Your task to perform on an android device: refresh tabs in the chrome app Image 0: 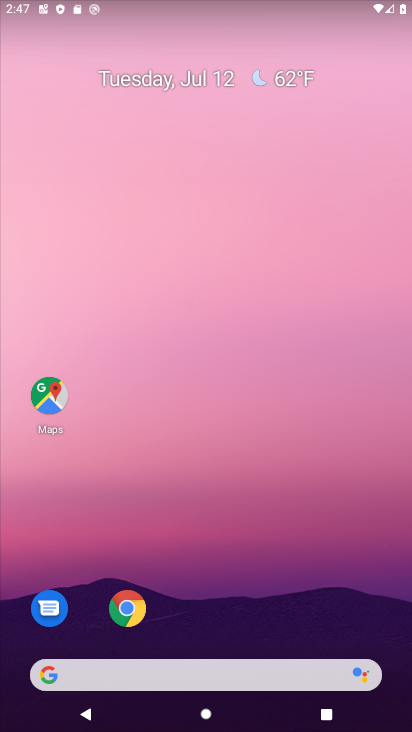
Step 0: click (122, 605)
Your task to perform on an android device: refresh tabs in the chrome app Image 1: 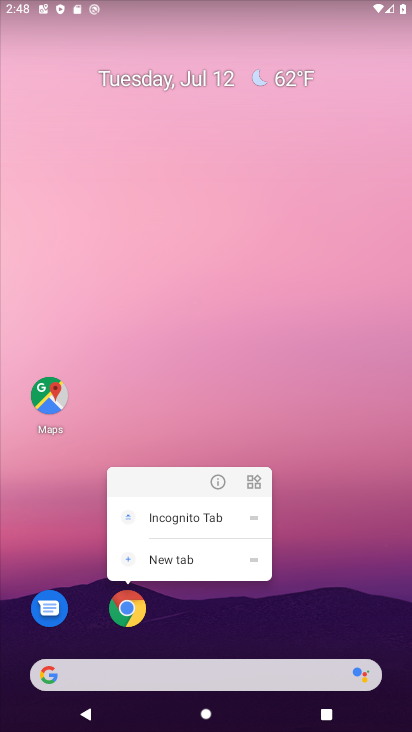
Step 1: click (136, 605)
Your task to perform on an android device: refresh tabs in the chrome app Image 2: 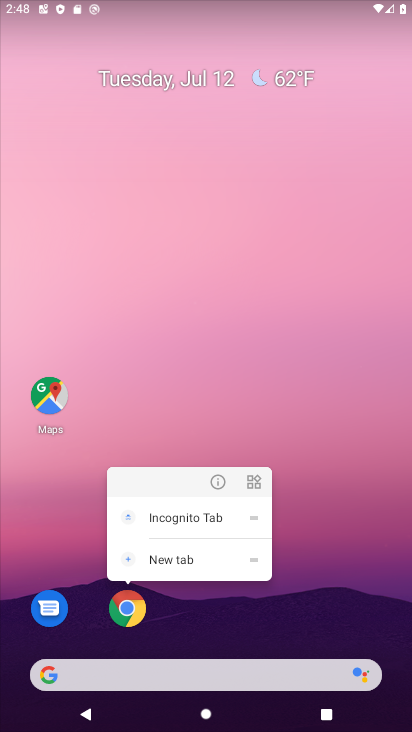
Step 2: click (127, 607)
Your task to perform on an android device: refresh tabs in the chrome app Image 3: 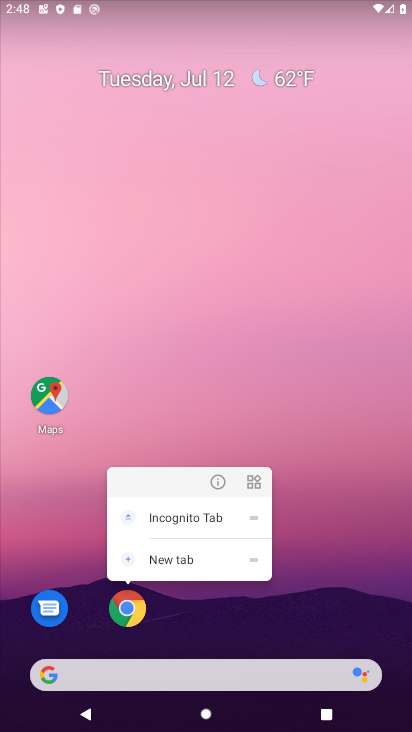
Step 3: click (127, 608)
Your task to perform on an android device: refresh tabs in the chrome app Image 4: 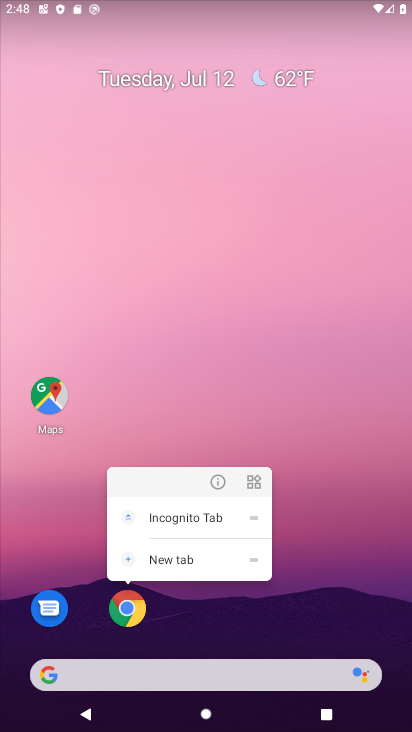
Step 4: click (127, 610)
Your task to perform on an android device: refresh tabs in the chrome app Image 5: 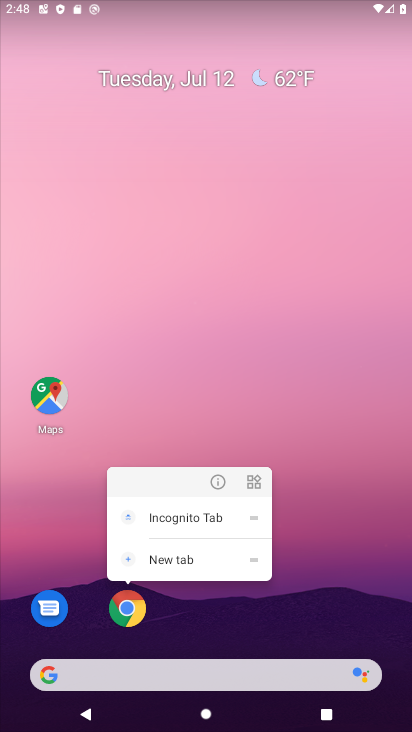
Step 5: click (127, 610)
Your task to perform on an android device: refresh tabs in the chrome app Image 6: 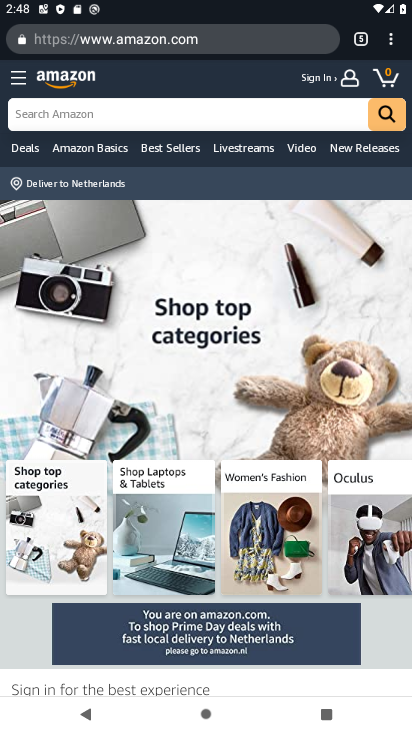
Step 6: click (386, 53)
Your task to perform on an android device: refresh tabs in the chrome app Image 7: 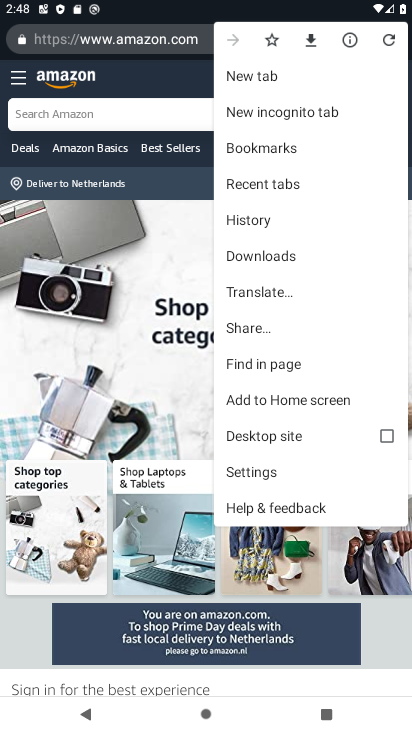
Step 7: click (385, 40)
Your task to perform on an android device: refresh tabs in the chrome app Image 8: 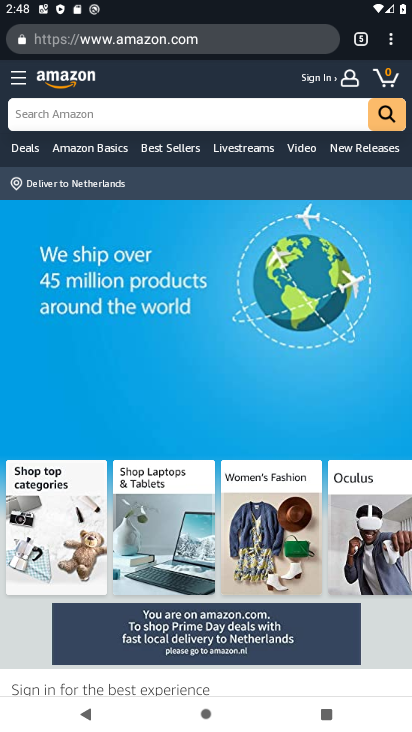
Step 8: task complete